Your task to perform on an android device: Open internet settings Image 0: 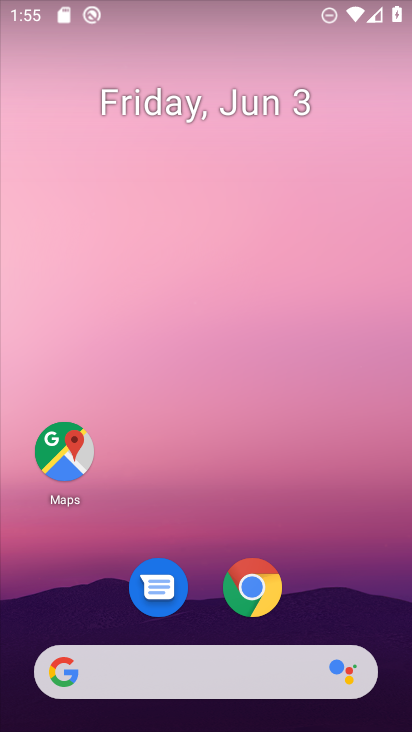
Step 0: drag from (321, 617) to (360, 0)
Your task to perform on an android device: Open internet settings Image 1: 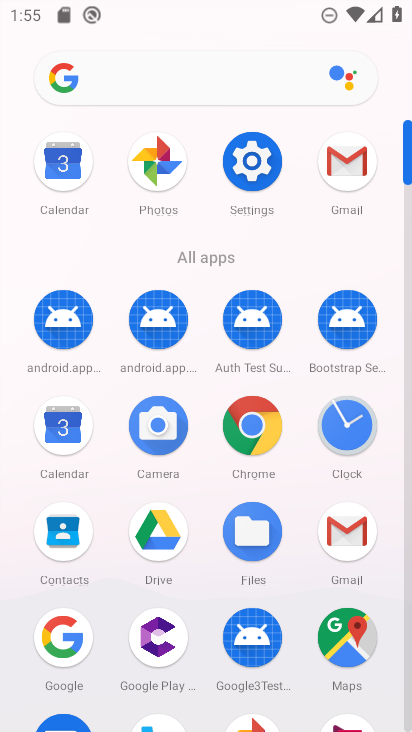
Step 1: click (258, 154)
Your task to perform on an android device: Open internet settings Image 2: 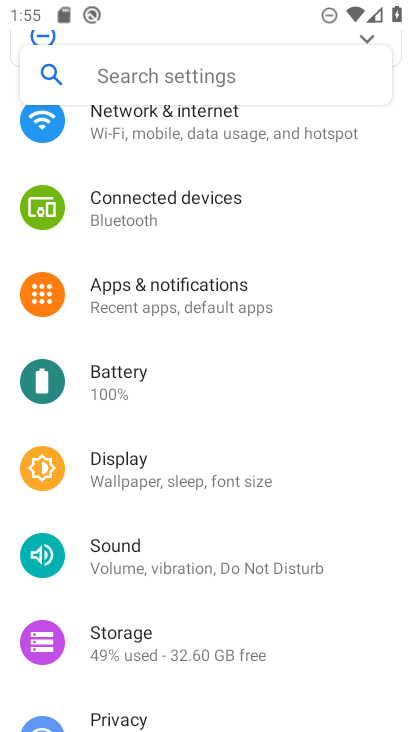
Step 2: click (171, 133)
Your task to perform on an android device: Open internet settings Image 3: 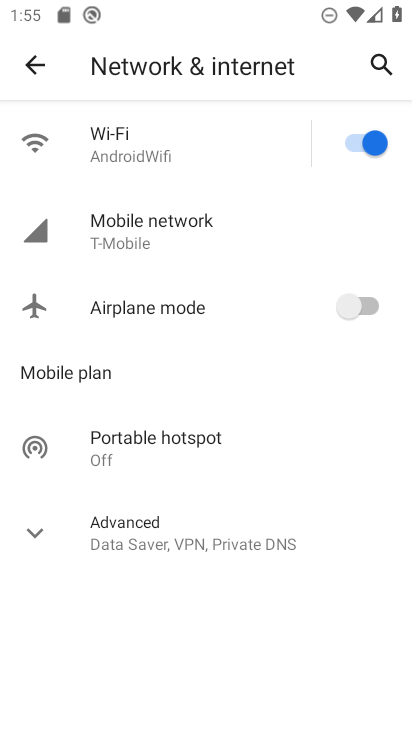
Step 3: click (174, 219)
Your task to perform on an android device: Open internet settings Image 4: 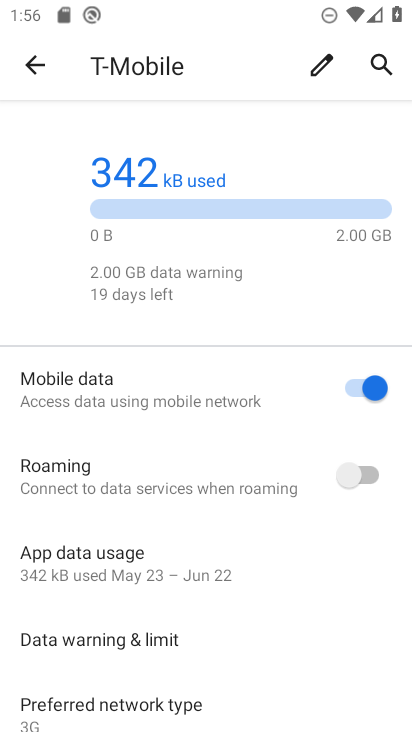
Step 4: task complete